Your task to perform on an android device: move an email to a new category in the gmail app Image 0: 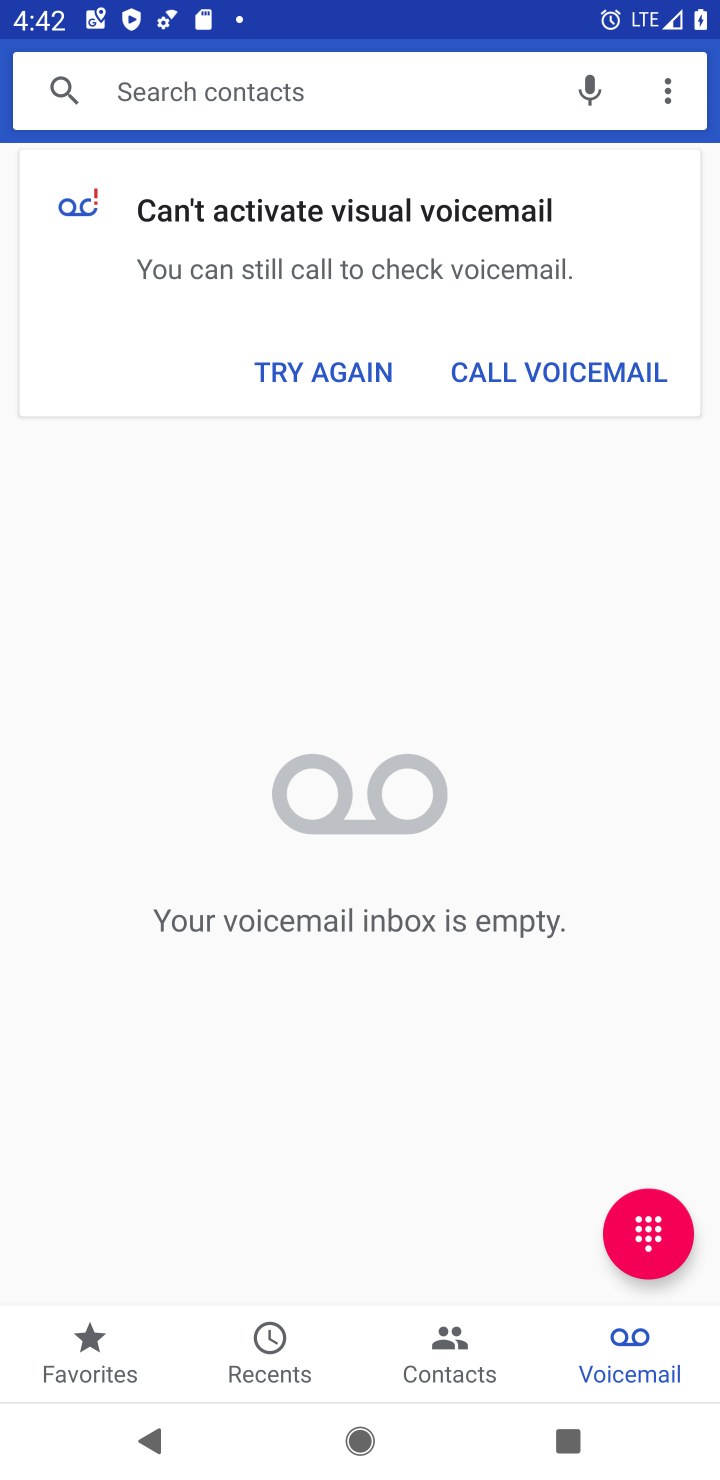
Step 0: press home button
Your task to perform on an android device: move an email to a new category in the gmail app Image 1: 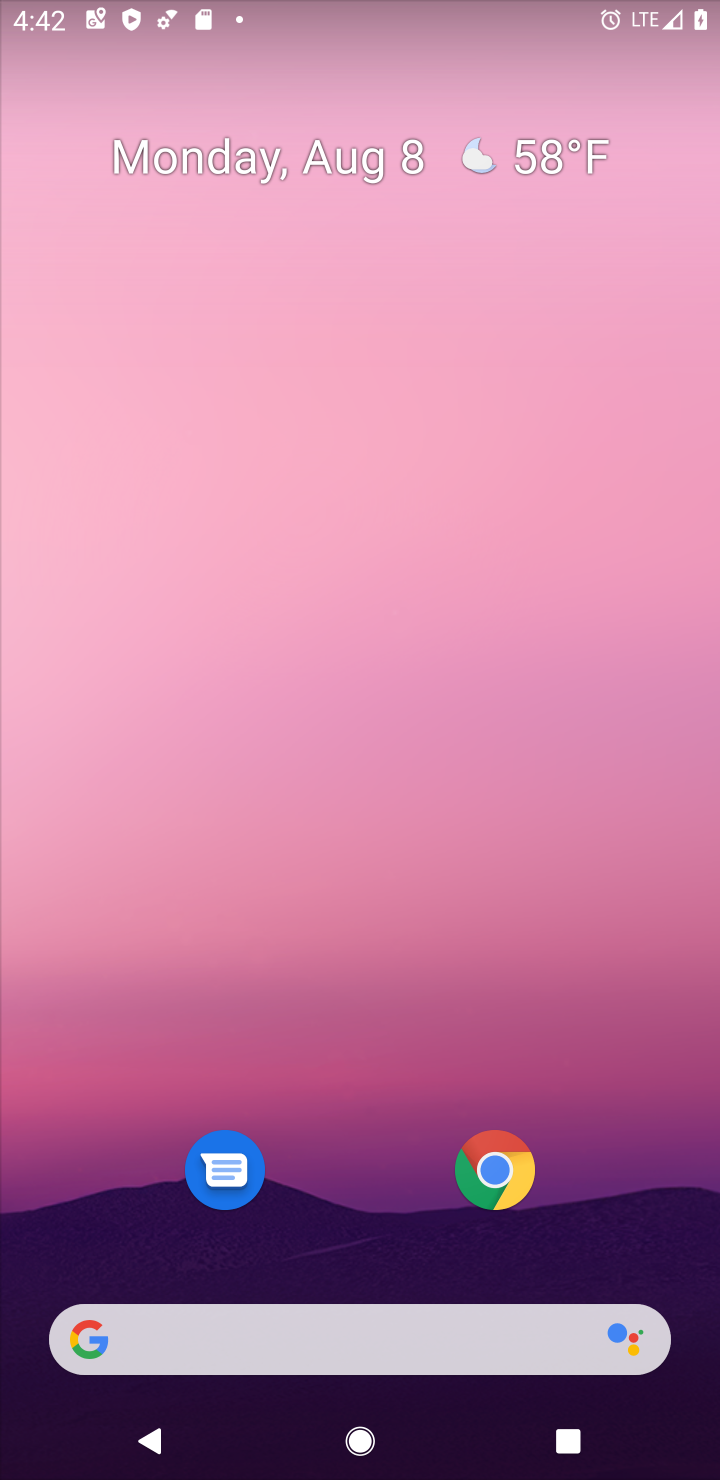
Step 1: drag from (373, 1226) to (346, 371)
Your task to perform on an android device: move an email to a new category in the gmail app Image 2: 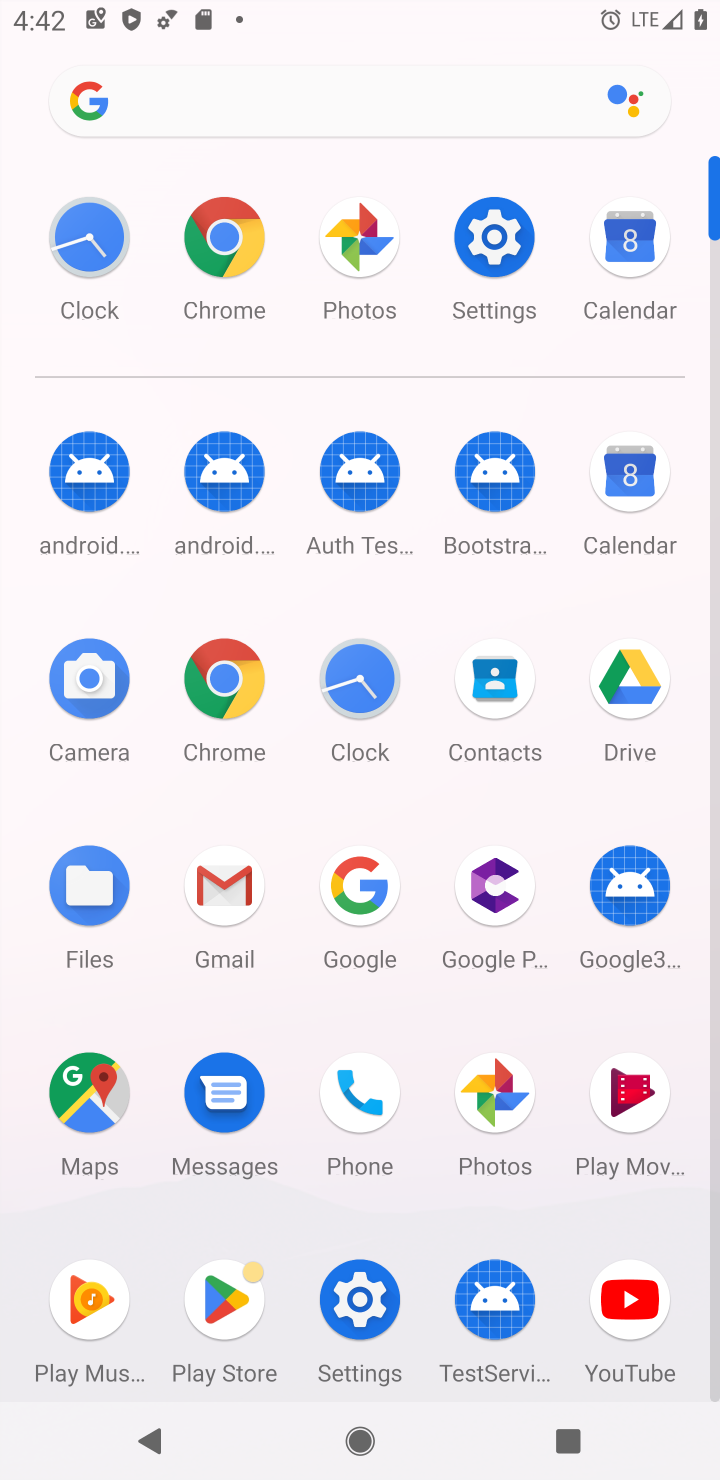
Step 2: click (336, 875)
Your task to perform on an android device: move an email to a new category in the gmail app Image 3: 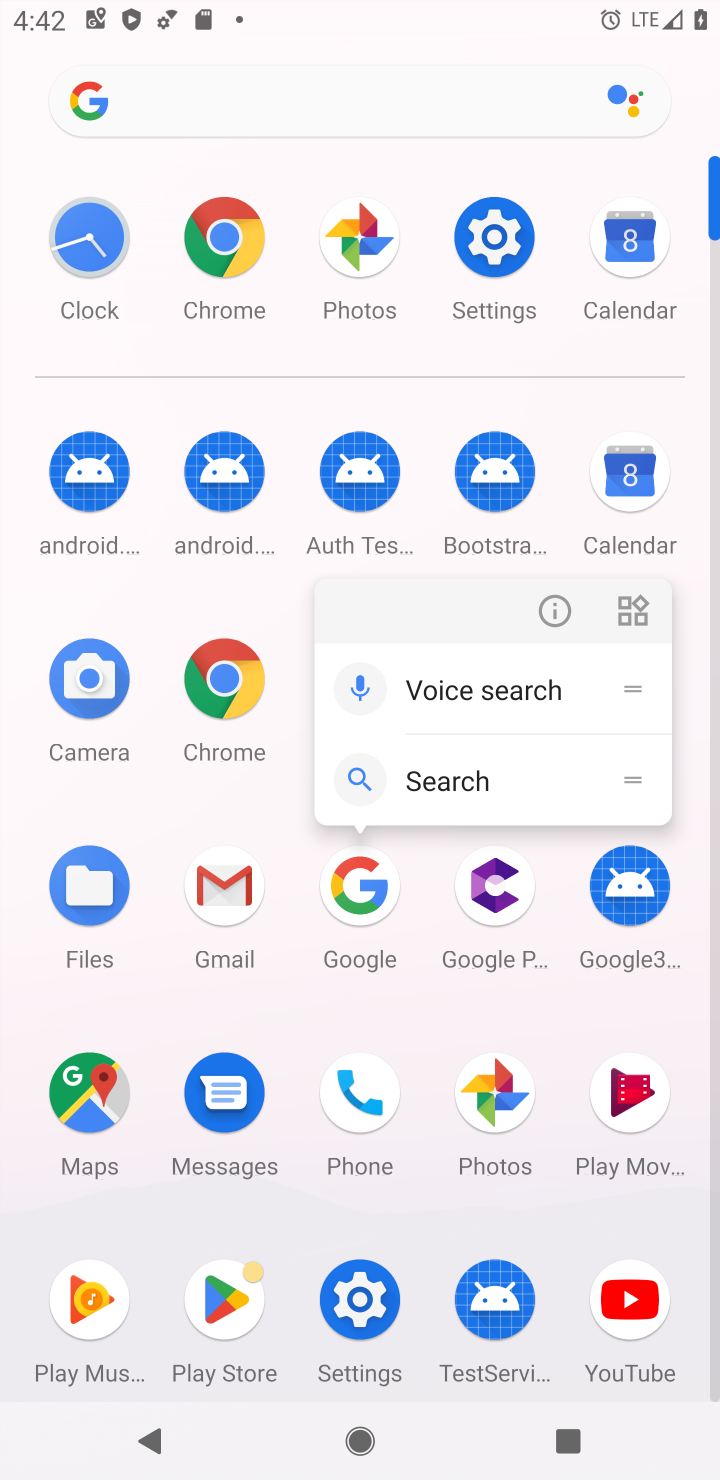
Step 3: click (225, 927)
Your task to perform on an android device: move an email to a new category in the gmail app Image 4: 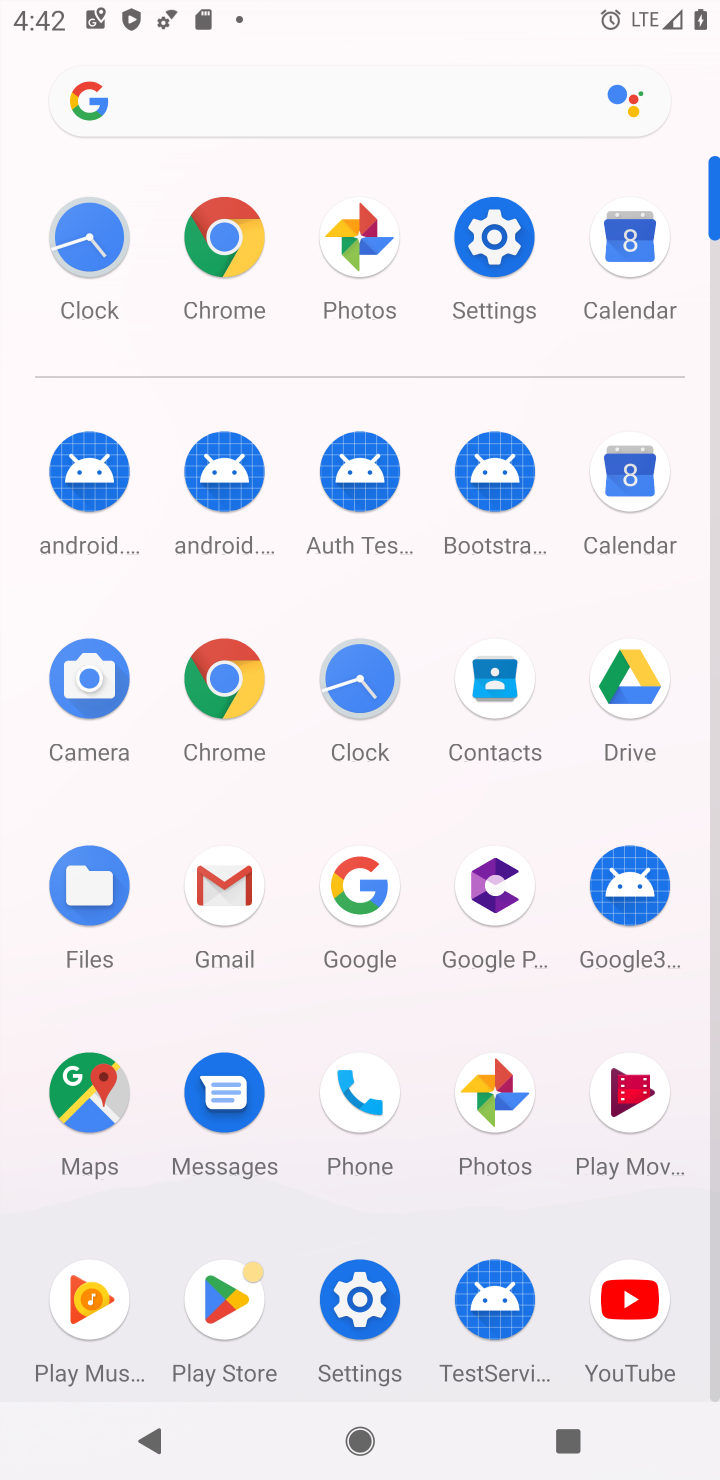
Step 4: click (227, 882)
Your task to perform on an android device: move an email to a new category in the gmail app Image 5: 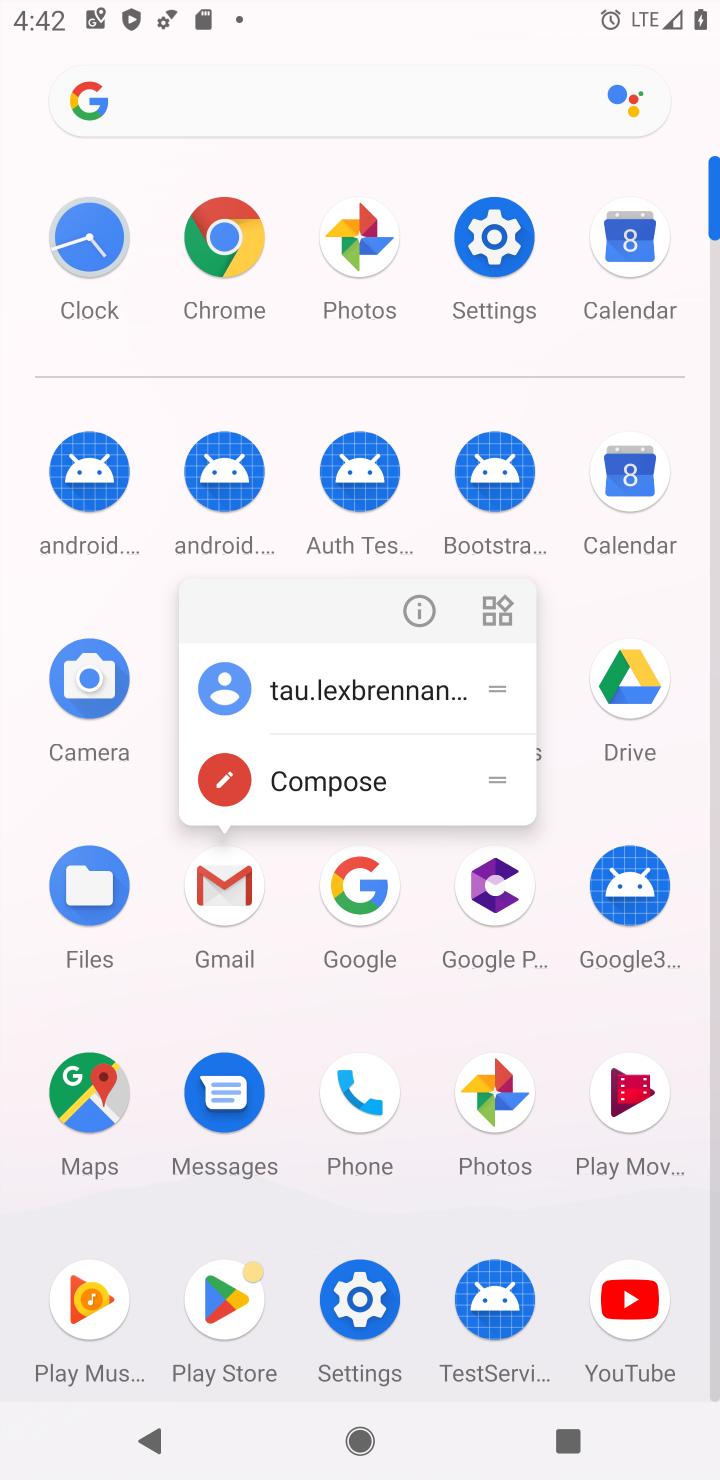
Step 5: click (230, 881)
Your task to perform on an android device: move an email to a new category in the gmail app Image 6: 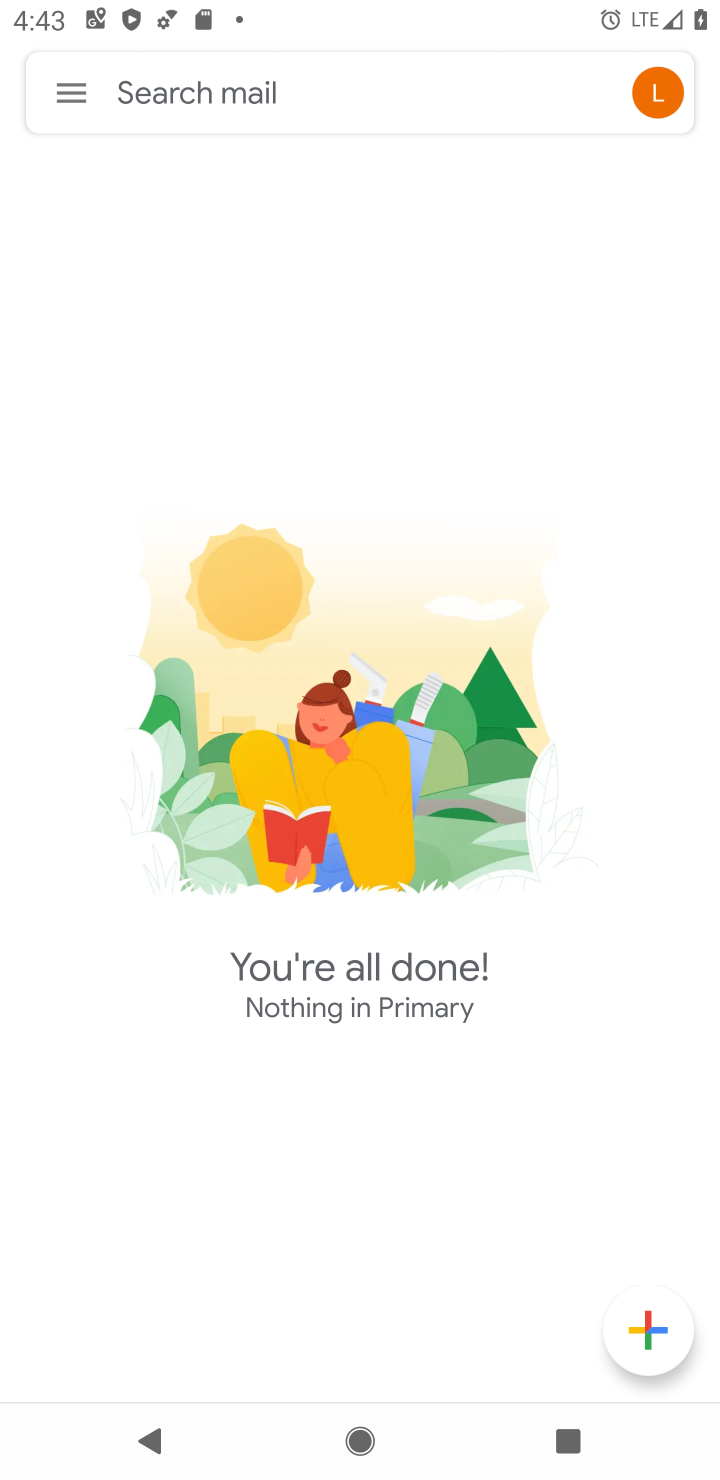
Step 6: click (77, 98)
Your task to perform on an android device: move an email to a new category in the gmail app Image 7: 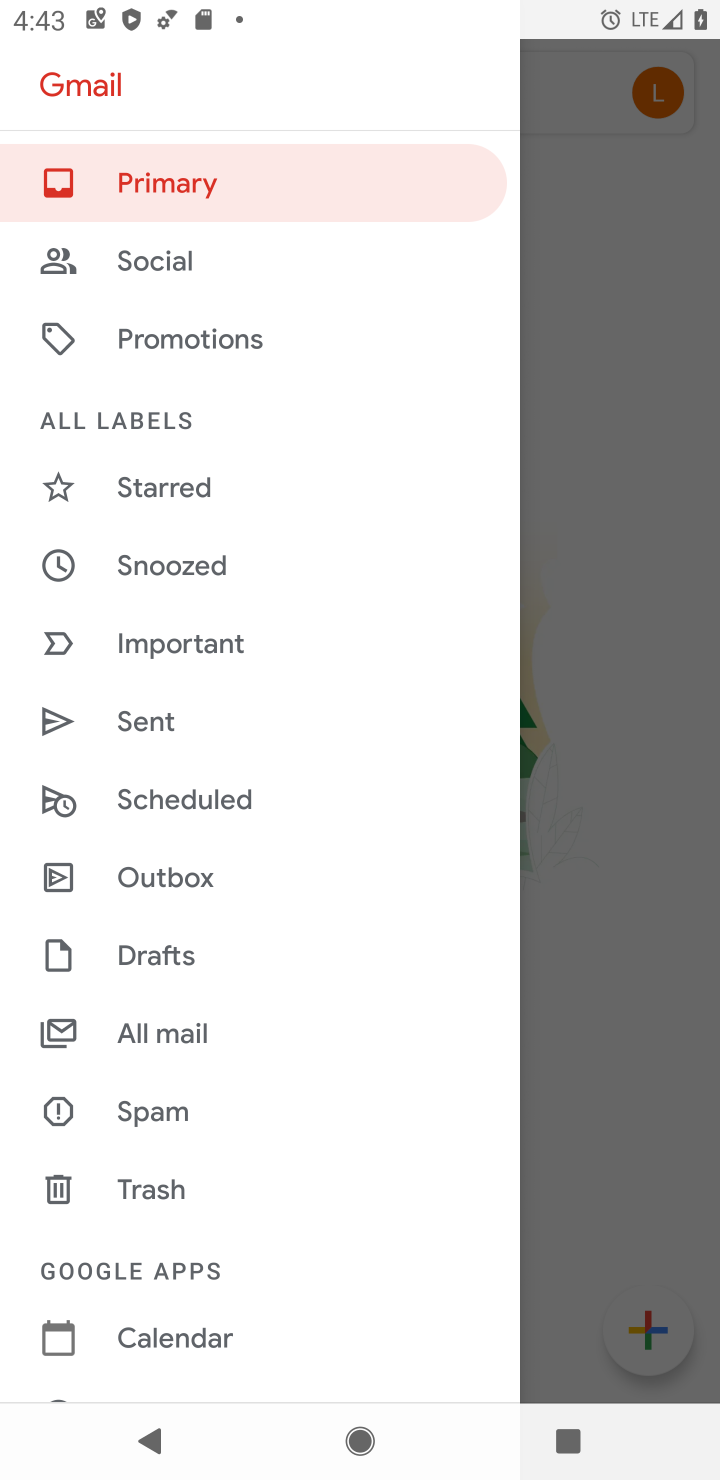
Step 7: click (172, 1055)
Your task to perform on an android device: move an email to a new category in the gmail app Image 8: 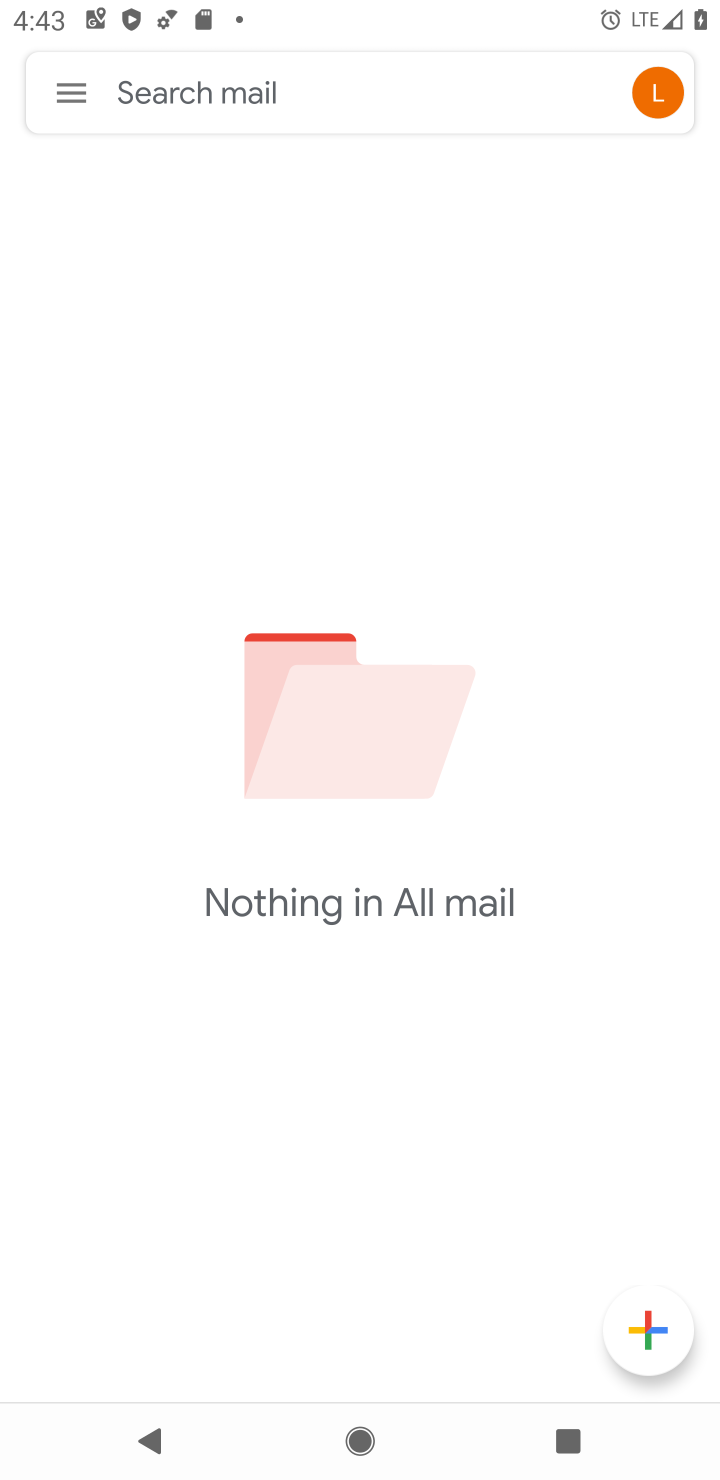
Step 8: task complete